Your task to perform on an android device: What is the recent news? Image 0: 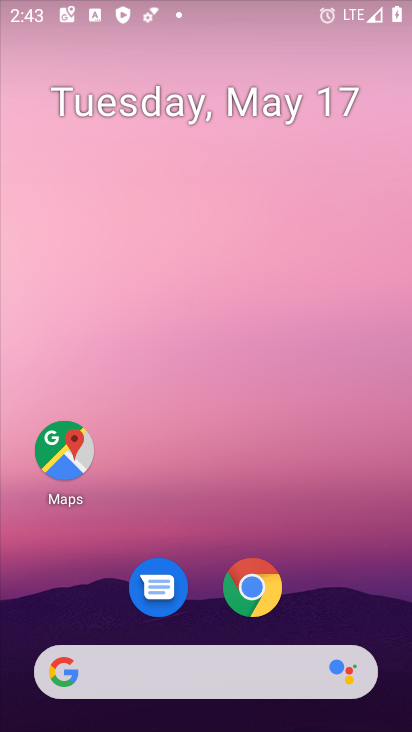
Step 0: drag from (201, 601) to (198, 2)
Your task to perform on an android device: What is the recent news? Image 1: 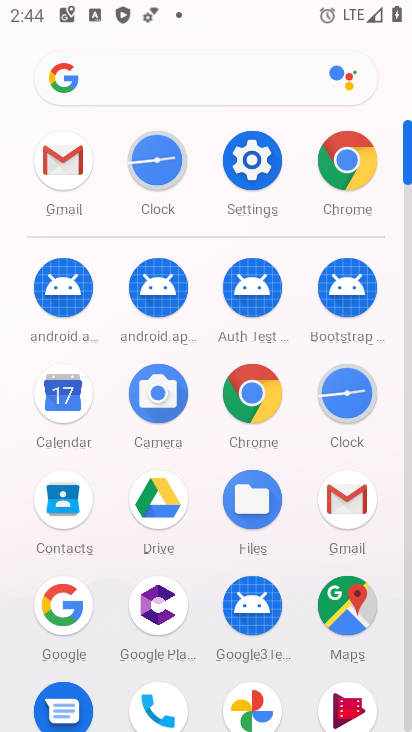
Step 1: click (123, 74)
Your task to perform on an android device: What is the recent news? Image 2: 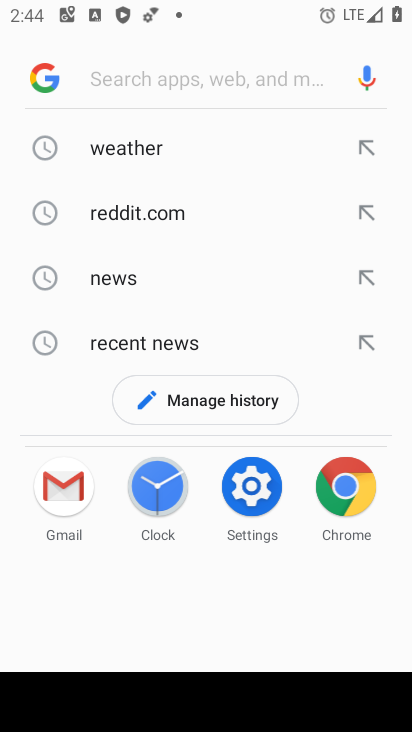
Step 2: click (165, 339)
Your task to perform on an android device: What is the recent news? Image 3: 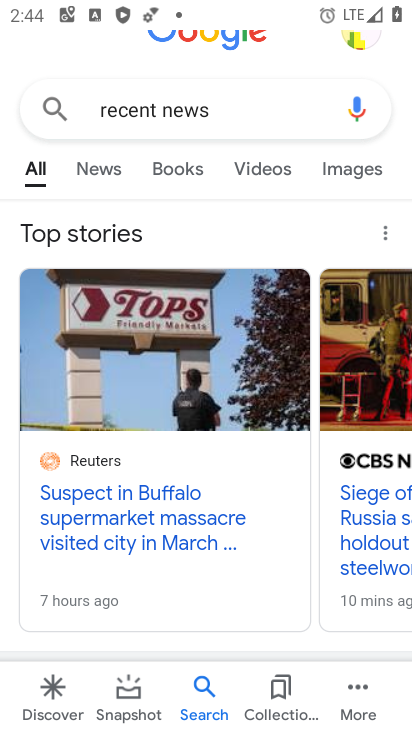
Step 3: task complete